Your task to perform on an android device: Play the last video I watched on Youtube Image 0: 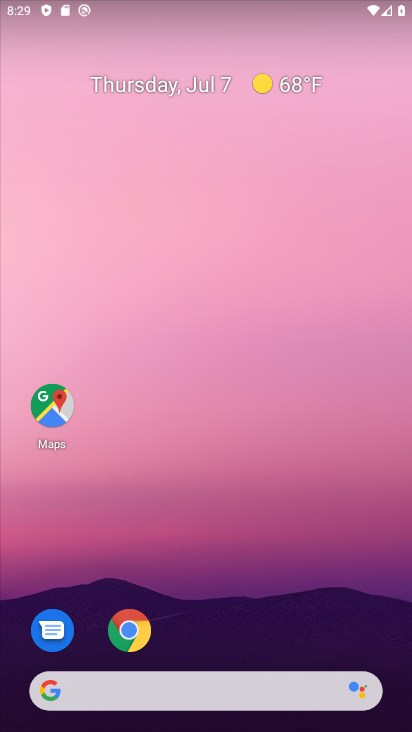
Step 0: drag from (240, 622) to (200, 124)
Your task to perform on an android device: Play the last video I watched on Youtube Image 1: 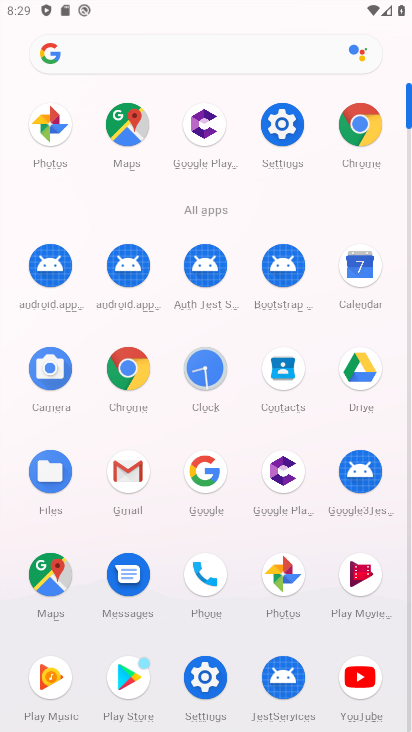
Step 1: click (359, 674)
Your task to perform on an android device: Play the last video I watched on Youtube Image 2: 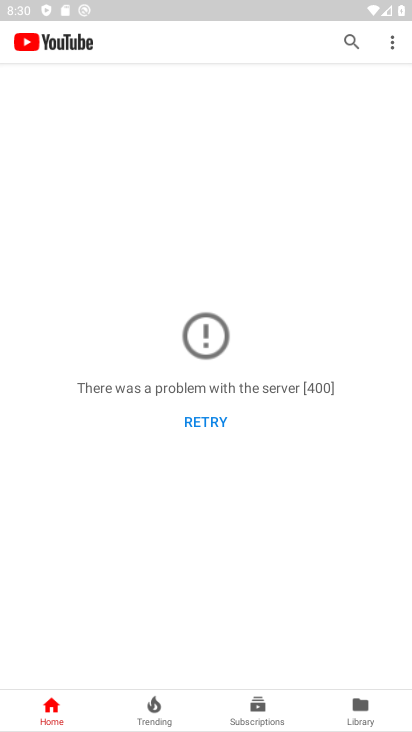
Step 2: click (211, 422)
Your task to perform on an android device: Play the last video I watched on Youtube Image 3: 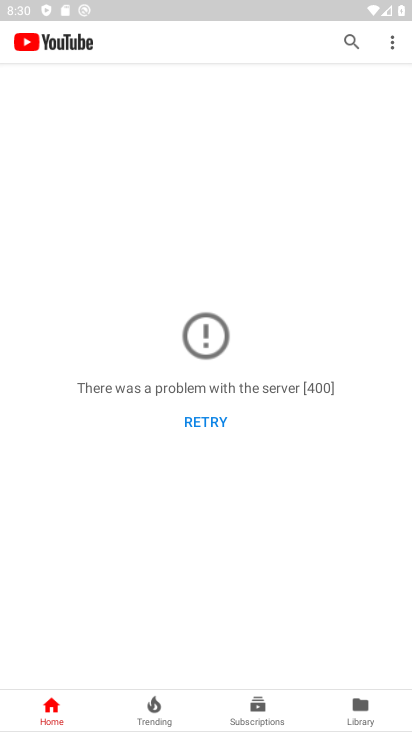
Step 3: click (211, 422)
Your task to perform on an android device: Play the last video I watched on Youtube Image 4: 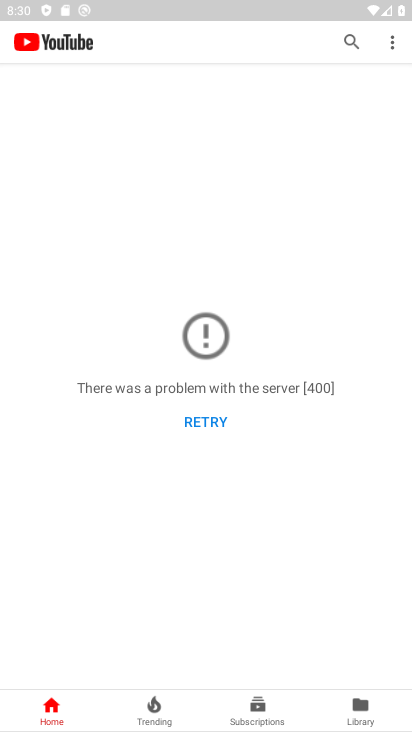
Step 4: click (211, 422)
Your task to perform on an android device: Play the last video I watched on Youtube Image 5: 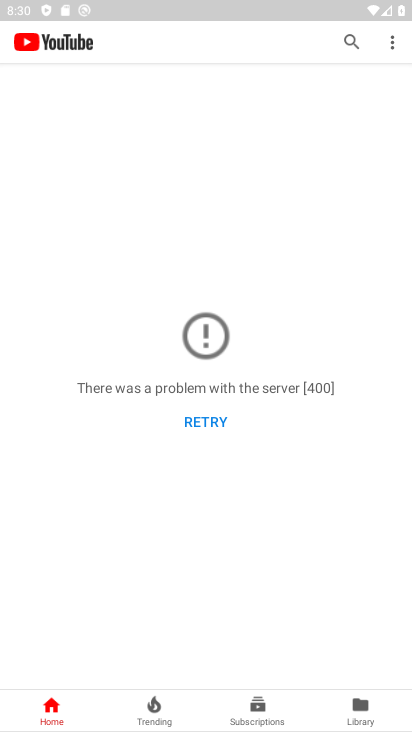
Step 5: click (211, 422)
Your task to perform on an android device: Play the last video I watched on Youtube Image 6: 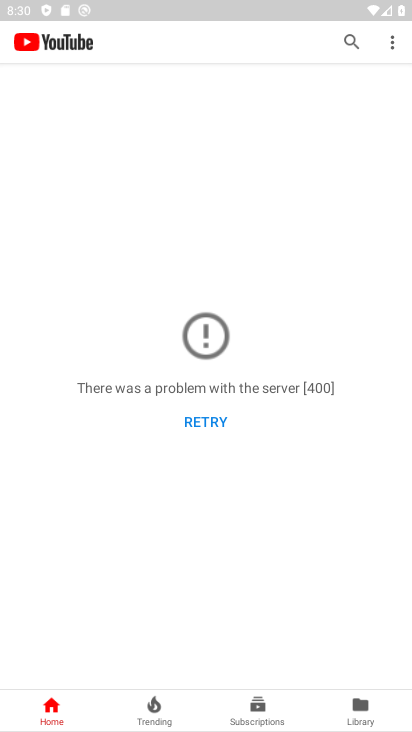
Step 6: click (373, 708)
Your task to perform on an android device: Play the last video I watched on Youtube Image 7: 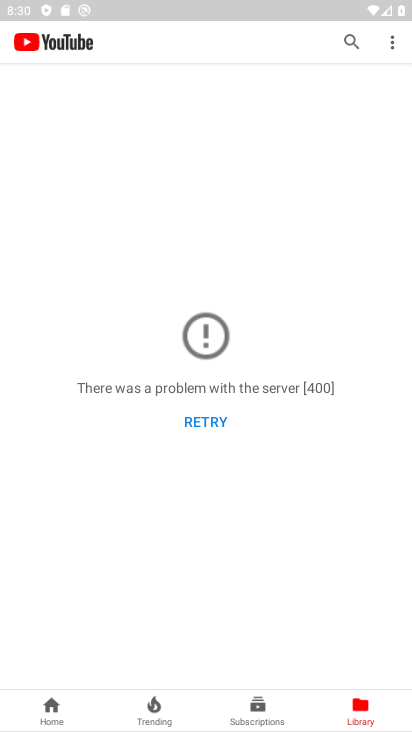
Step 7: task complete